Your task to perform on an android device: Open wifi settings Image 0: 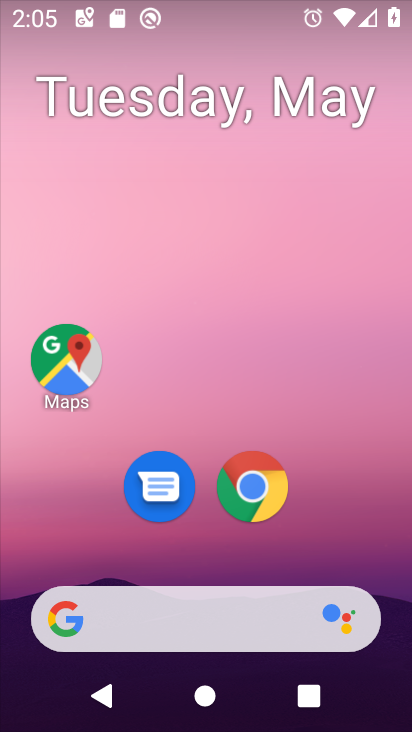
Step 0: drag from (233, 35) to (261, 386)
Your task to perform on an android device: Open wifi settings Image 1: 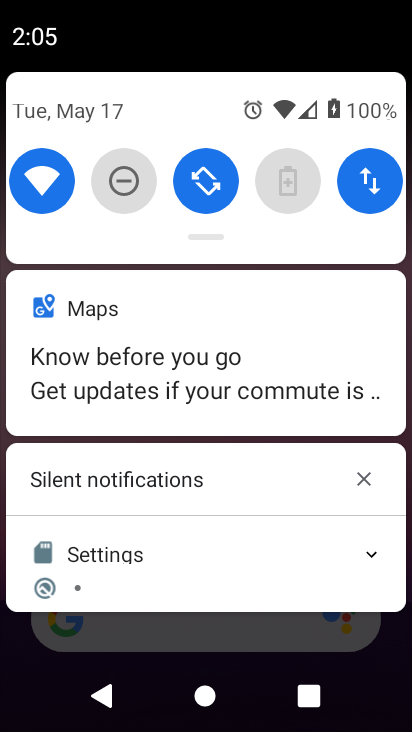
Step 1: click (30, 179)
Your task to perform on an android device: Open wifi settings Image 2: 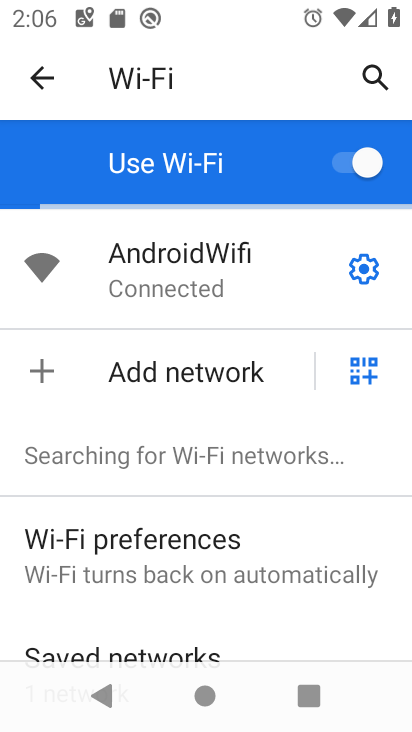
Step 2: click (359, 264)
Your task to perform on an android device: Open wifi settings Image 3: 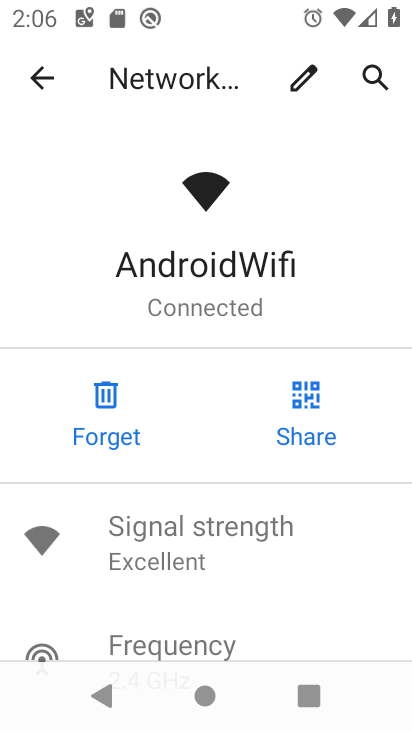
Step 3: task complete